Your task to perform on an android device: Open privacy settings Image 0: 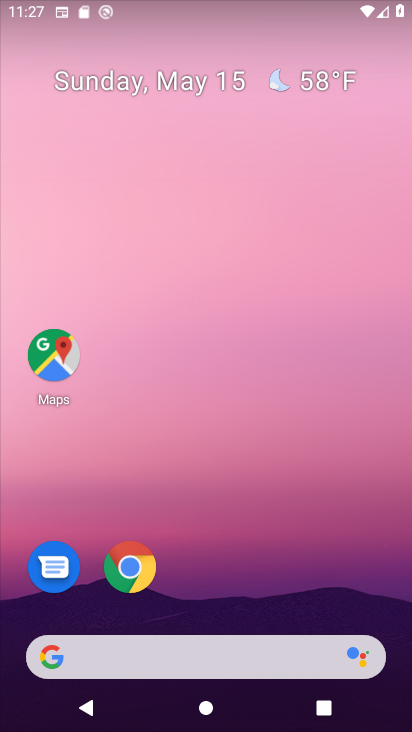
Step 0: drag from (234, 624) to (281, 38)
Your task to perform on an android device: Open privacy settings Image 1: 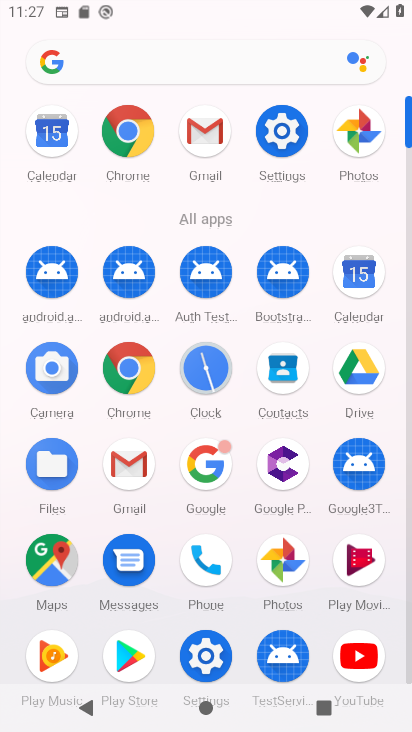
Step 1: click (300, 130)
Your task to perform on an android device: Open privacy settings Image 2: 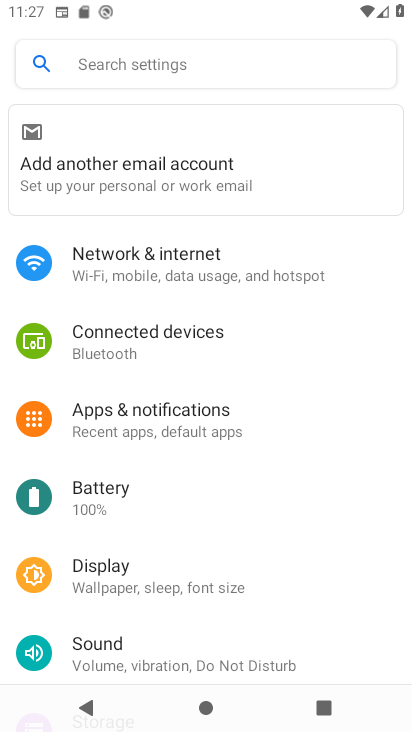
Step 2: drag from (111, 649) to (172, 131)
Your task to perform on an android device: Open privacy settings Image 3: 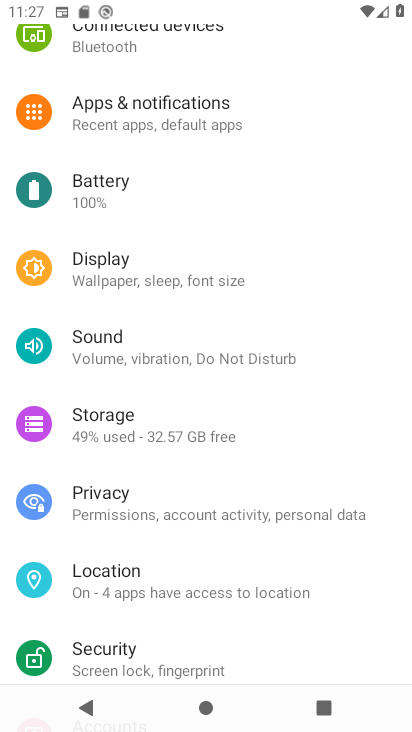
Step 3: click (192, 489)
Your task to perform on an android device: Open privacy settings Image 4: 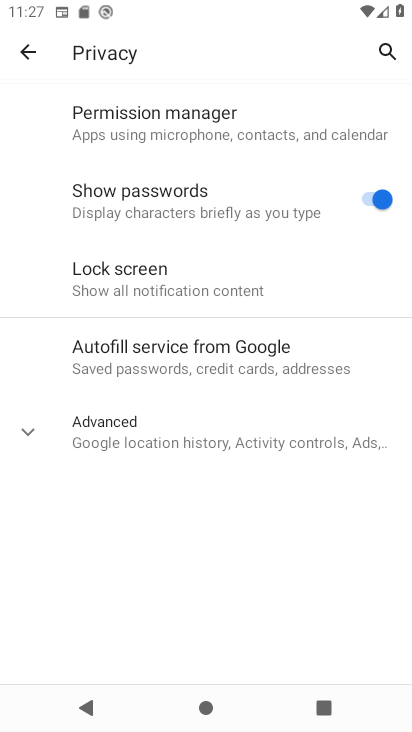
Step 4: click (104, 492)
Your task to perform on an android device: Open privacy settings Image 5: 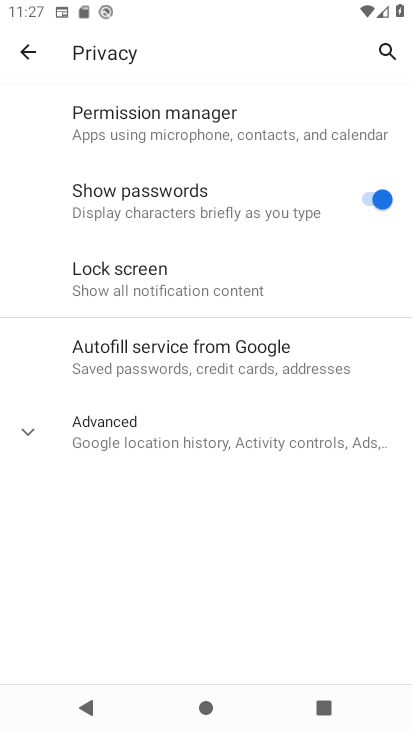
Step 5: task complete